Your task to perform on an android device: change timer sound Image 0: 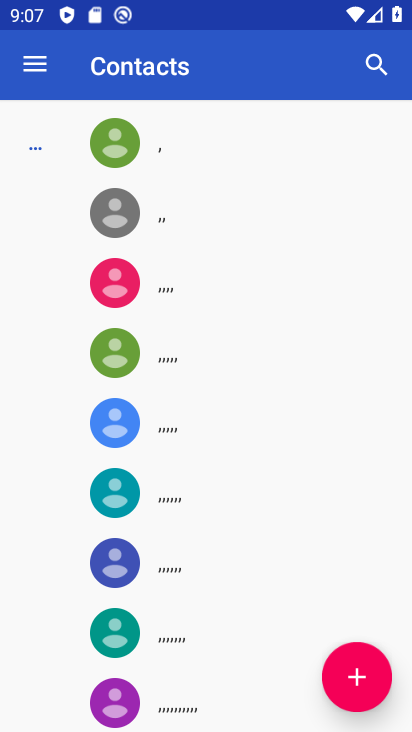
Step 0: press home button
Your task to perform on an android device: change timer sound Image 1: 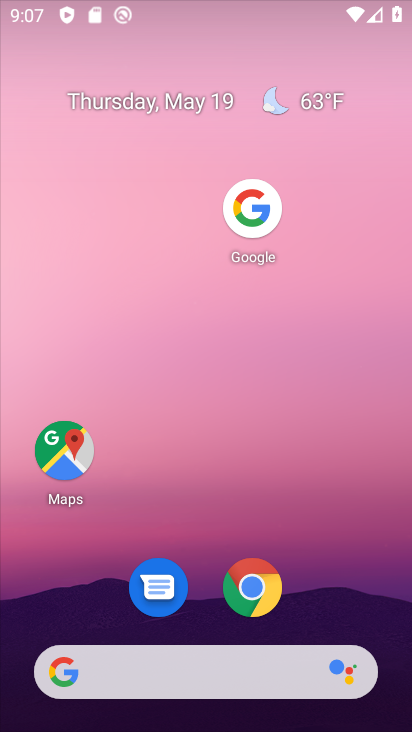
Step 1: drag from (210, 653) to (211, 17)
Your task to perform on an android device: change timer sound Image 2: 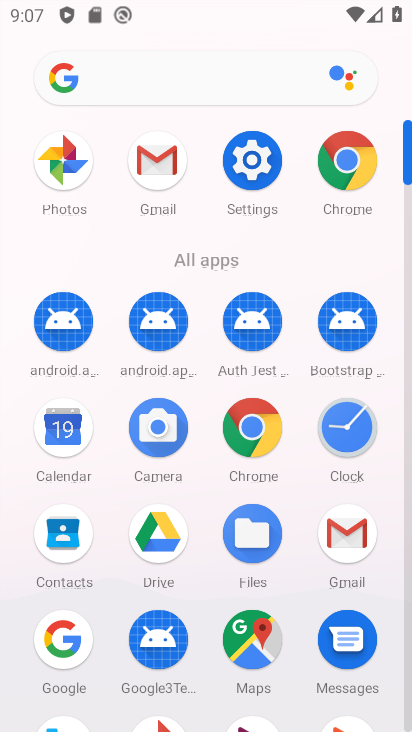
Step 2: click (262, 145)
Your task to perform on an android device: change timer sound Image 3: 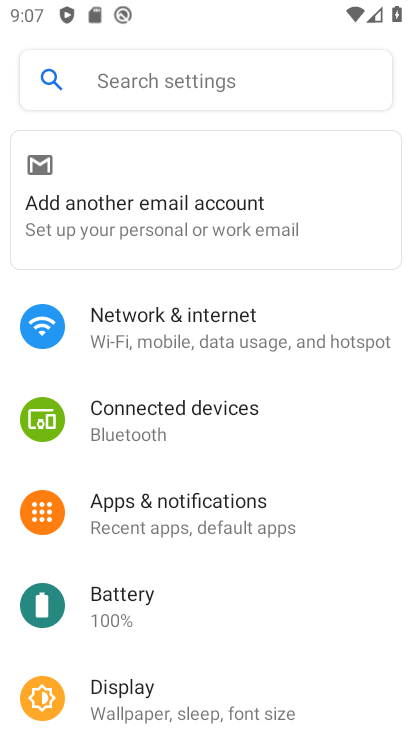
Step 3: press home button
Your task to perform on an android device: change timer sound Image 4: 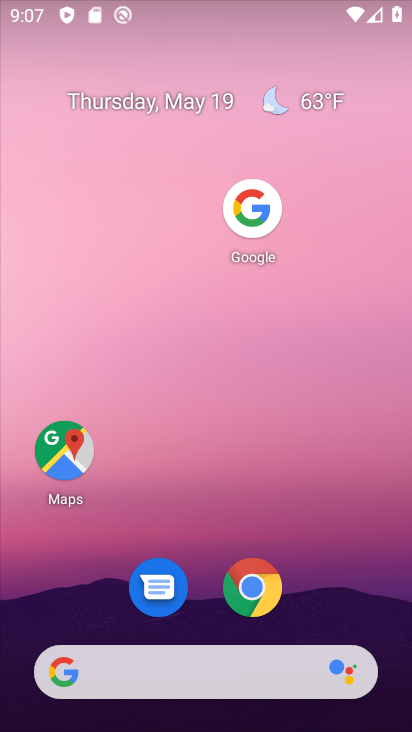
Step 4: drag from (217, 639) to (185, 17)
Your task to perform on an android device: change timer sound Image 5: 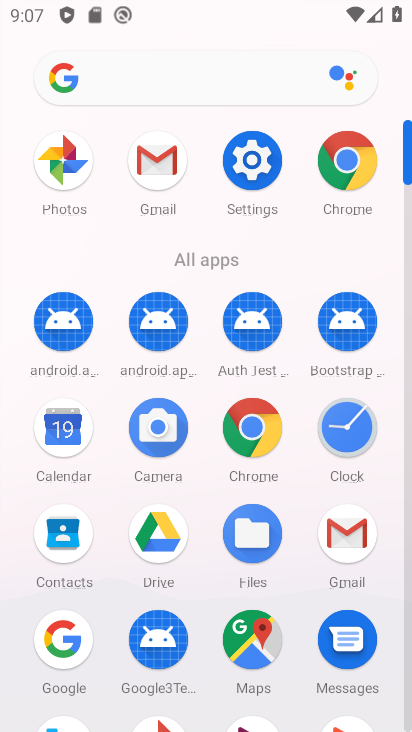
Step 5: click (355, 425)
Your task to perform on an android device: change timer sound Image 6: 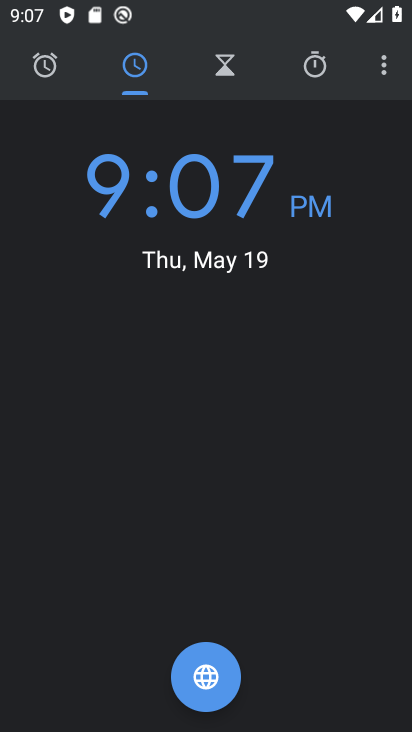
Step 6: click (375, 64)
Your task to perform on an android device: change timer sound Image 7: 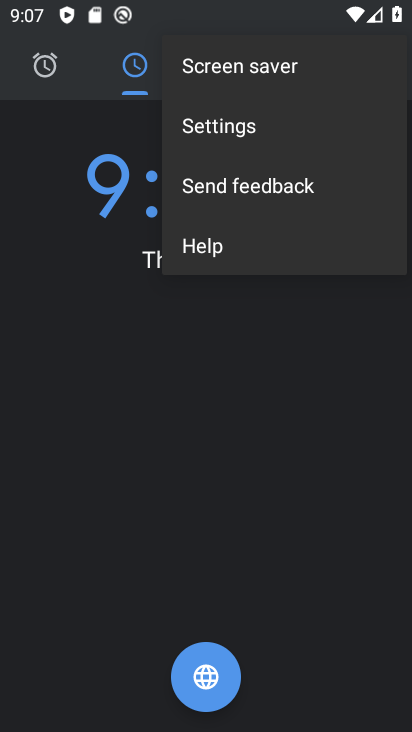
Step 7: click (241, 131)
Your task to perform on an android device: change timer sound Image 8: 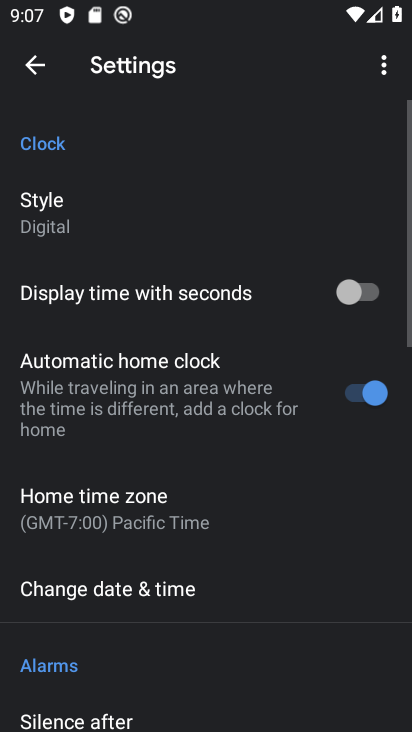
Step 8: click (218, 589)
Your task to perform on an android device: change timer sound Image 9: 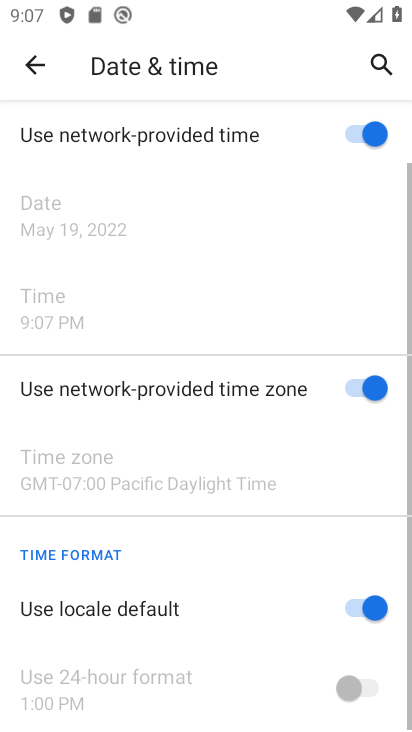
Step 9: click (43, 71)
Your task to perform on an android device: change timer sound Image 10: 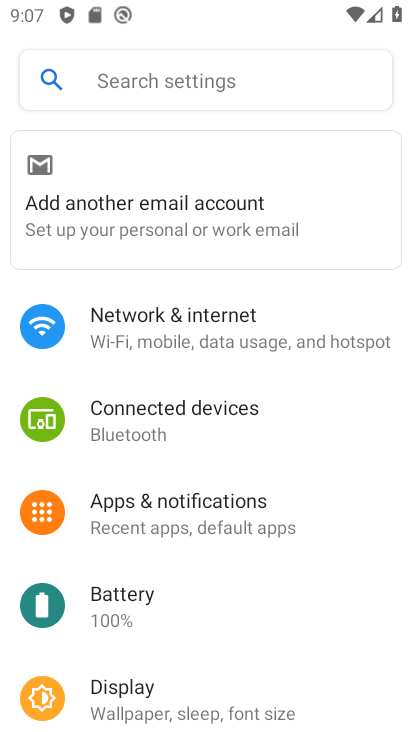
Step 10: drag from (69, 519) to (70, 159)
Your task to perform on an android device: change timer sound Image 11: 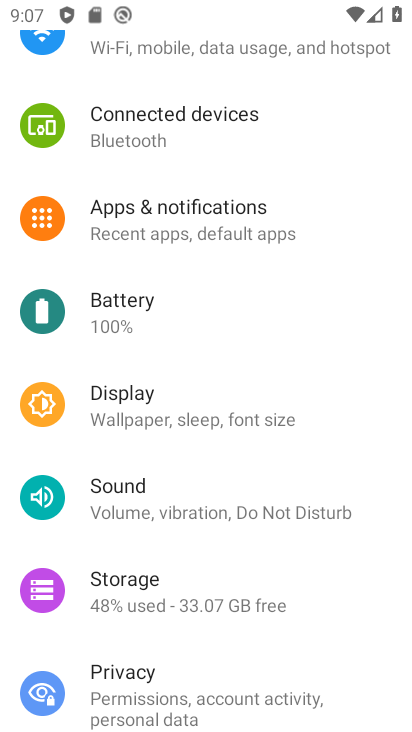
Step 11: press back button
Your task to perform on an android device: change timer sound Image 12: 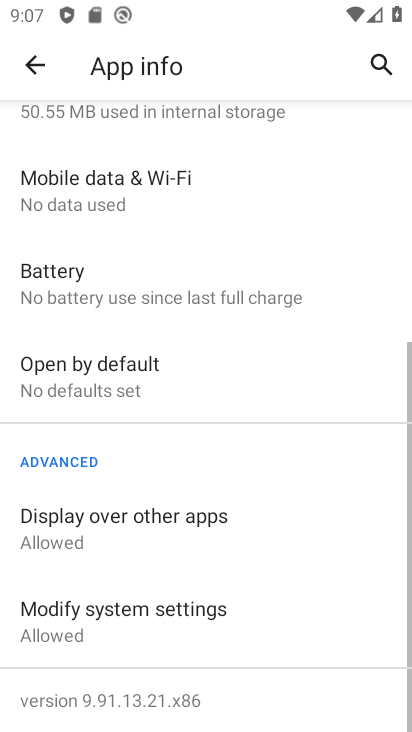
Step 12: press back button
Your task to perform on an android device: change timer sound Image 13: 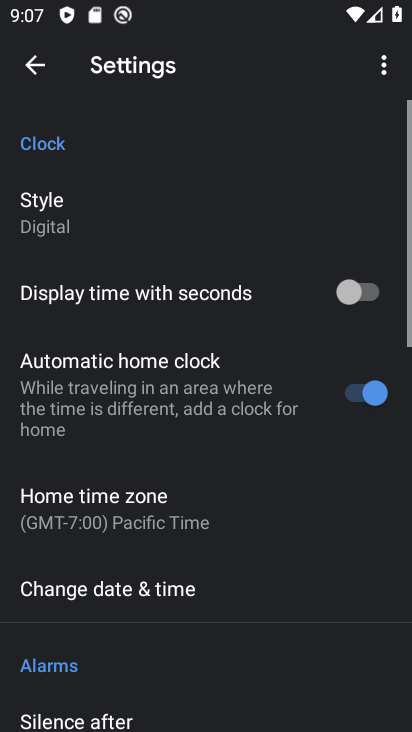
Step 13: drag from (253, 654) to (204, 160)
Your task to perform on an android device: change timer sound Image 14: 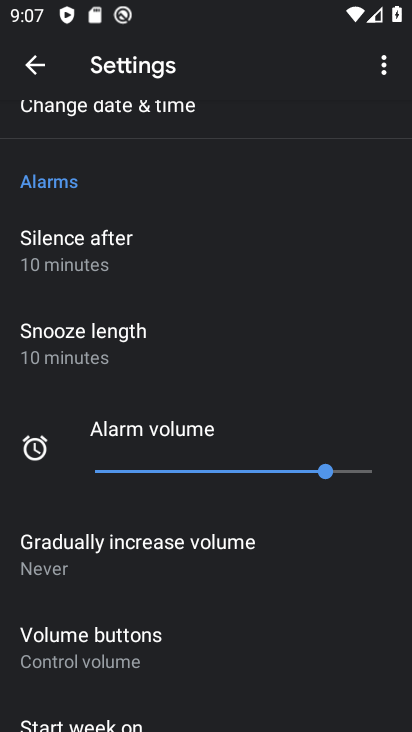
Step 14: drag from (172, 565) to (159, 154)
Your task to perform on an android device: change timer sound Image 15: 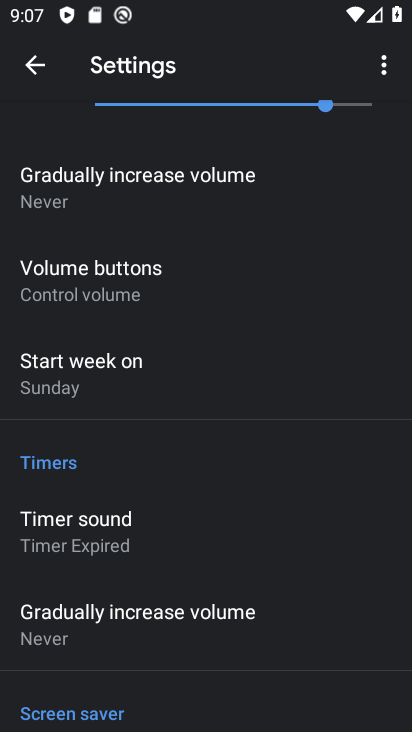
Step 15: click (109, 533)
Your task to perform on an android device: change timer sound Image 16: 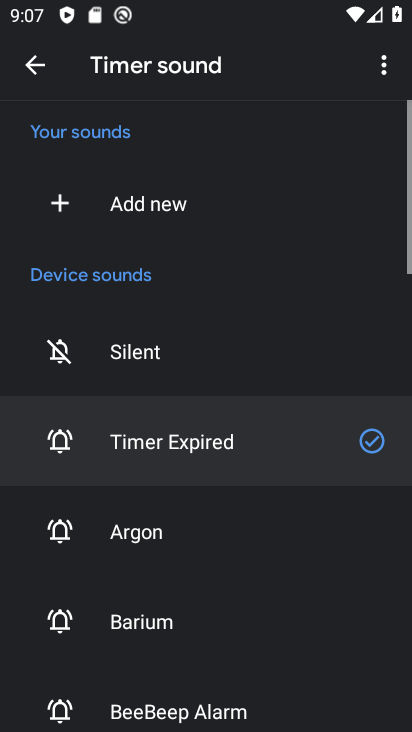
Step 16: click (147, 527)
Your task to perform on an android device: change timer sound Image 17: 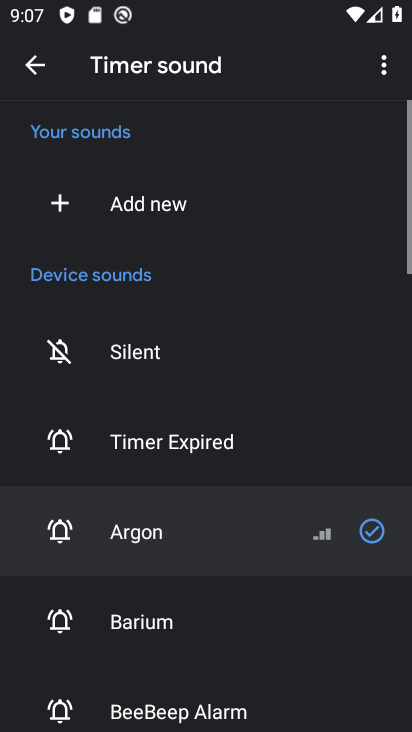
Step 17: task complete